Your task to perform on an android device: set default search engine in the chrome app Image 0: 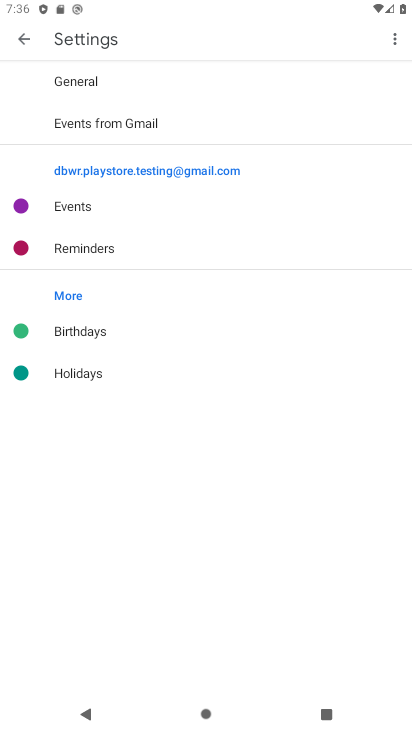
Step 0: press home button
Your task to perform on an android device: set default search engine in the chrome app Image 1: 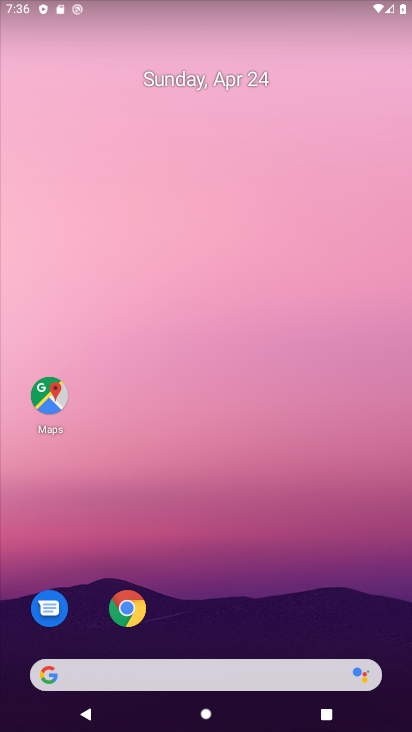
Step 1: click (136, 605)
Your task to perform on an android device: set default search engine in the chrome app Image 2: 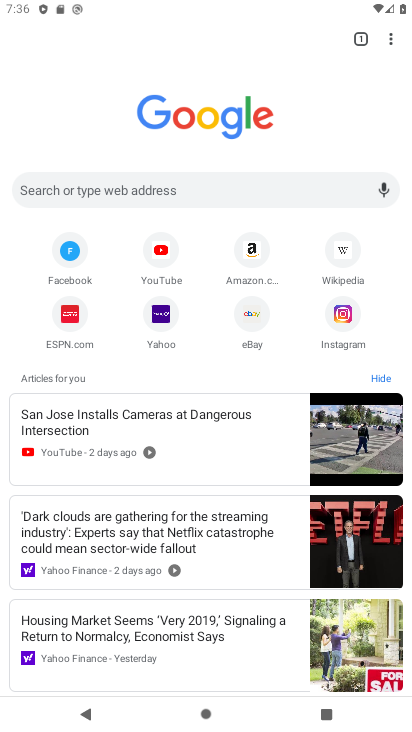
Step 2: click (391, 39)
Your task to perform on an android device: set default search engine in the chrome app Image 3: 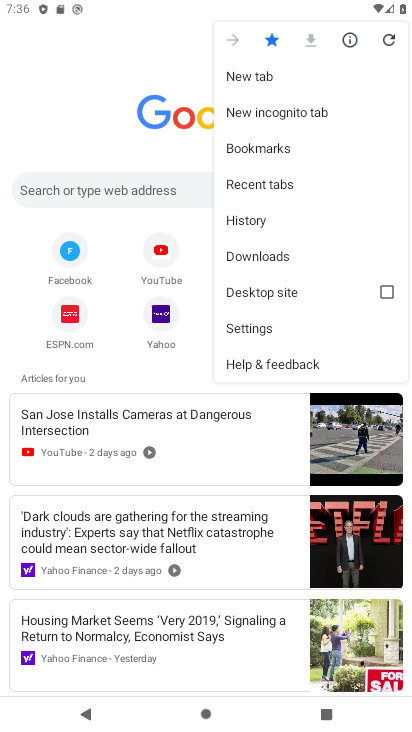
Step 3: click (293, 324)
Your task to perform on an android device: set default search engine in the chrome app Image 4: 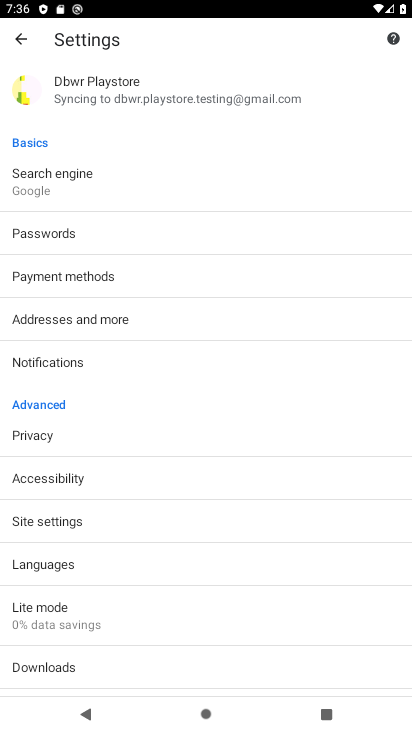
Step 4: click (118, 189)
Your task to perform on an android device: set default search engine in the chrome app Image 5: 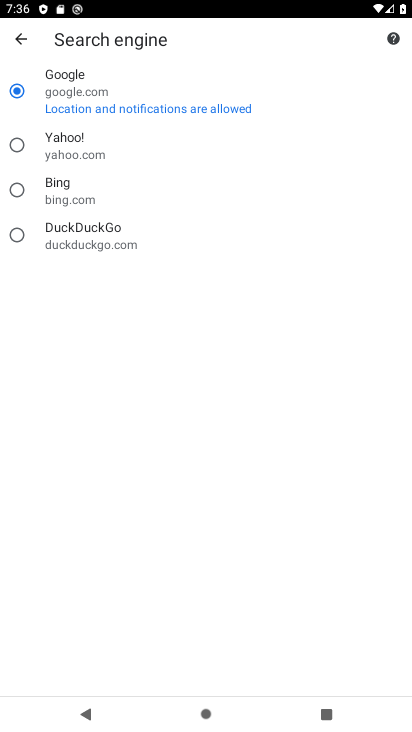
Step 5: task complete